Your task to perform on an android device: Go to Google maps Image 0: 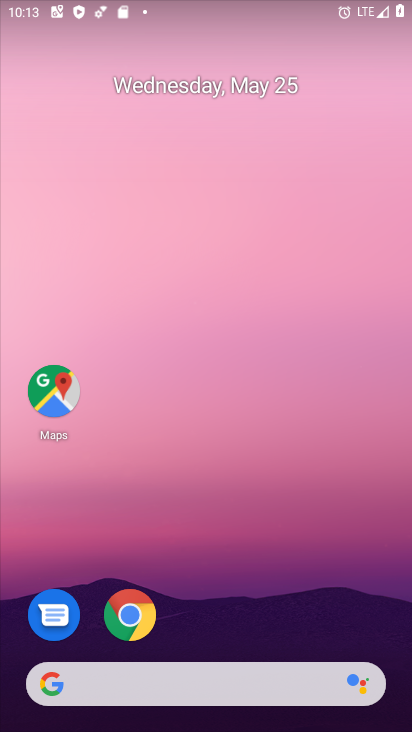
Step 0: click (47, 391)
Your task to perform on an android device: Go to Google maps Image 1: 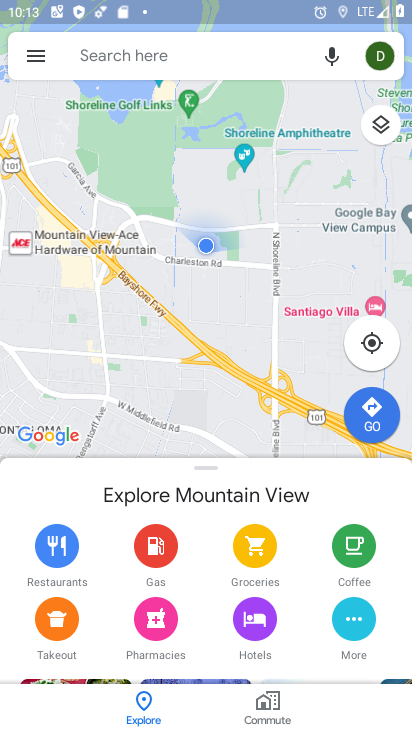
Step 1: task complete